Your task to perform on an android device: check google app version Image 0: 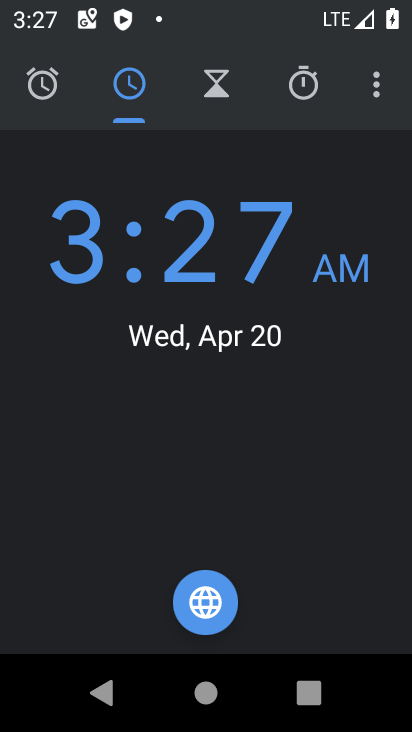
Step 0: press home button
Your task to perform on an android device: check google app version Image 1: 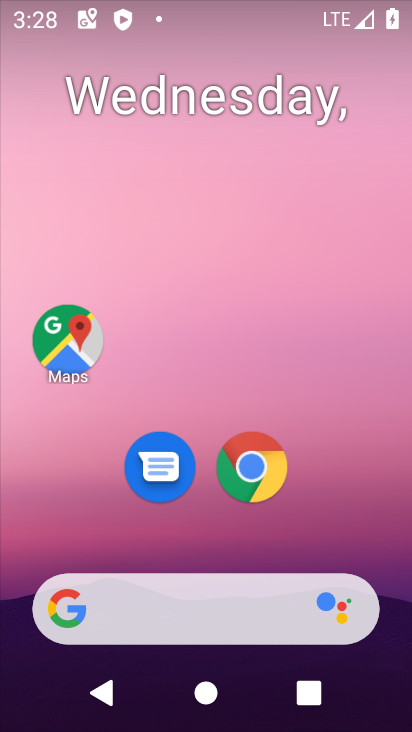
Step 1: click (248, 465)
Your task to perform on an android device: check google app version Image 2: 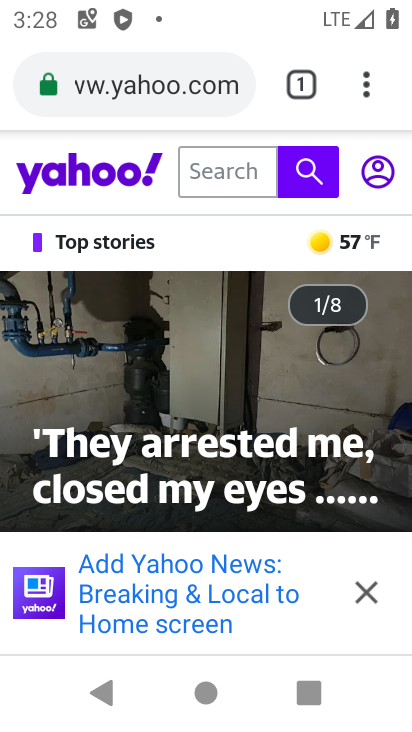
Step 2: click (365, 92)
Your task to perform on an android device: check google app version Image 3: 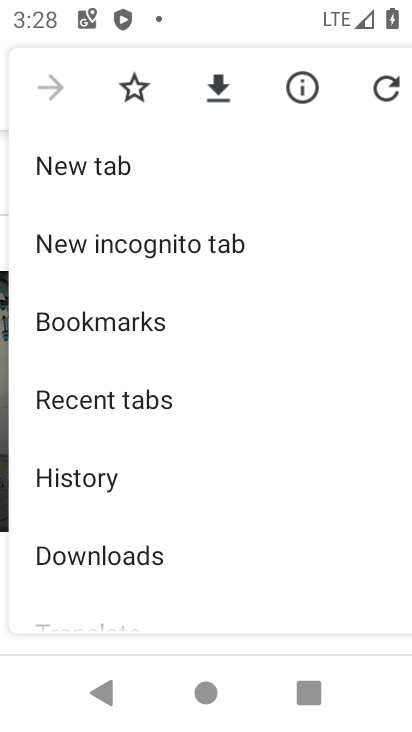
Step 3: drag from (225, 560) to (243, 270)
Your task to perform on an android device: check google app version Image 4: 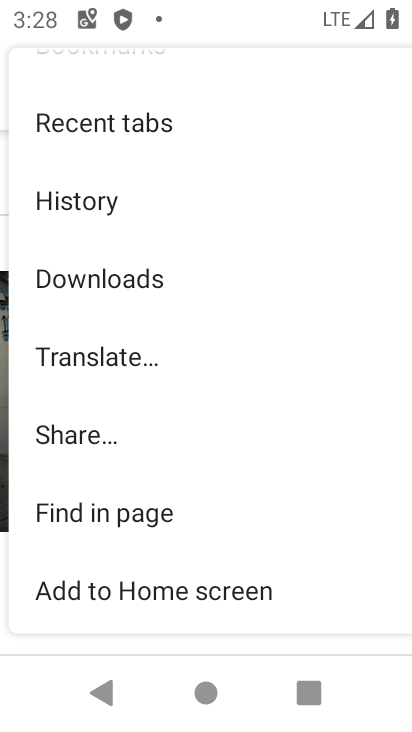
Step 4: drag from (267, 542) to (244, 200)
Your task to perform on an android device: check google app version Image 5: 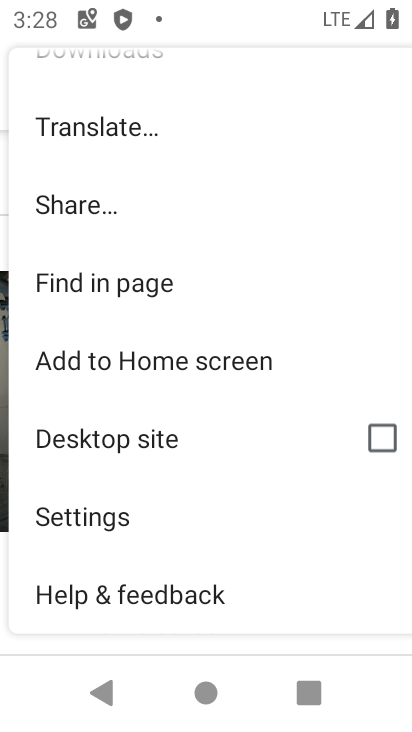
Step 5: click (89, 521)
Your task to perform on an android device: check google app version Image 6: 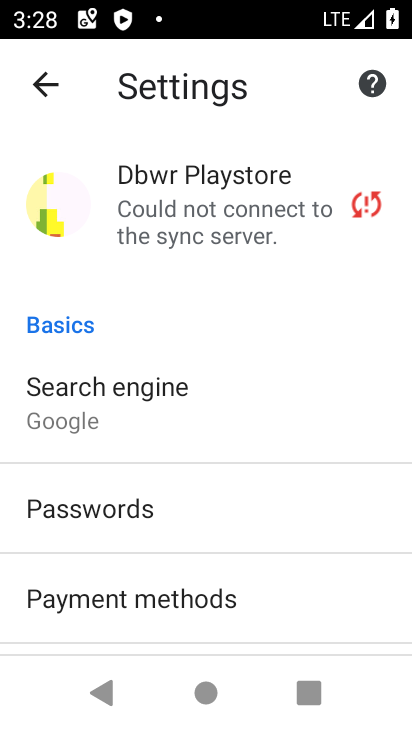
Step 6: drag from (286, 580) to (298, 300)
Your task to perform on an android device: check google app version Image 7: 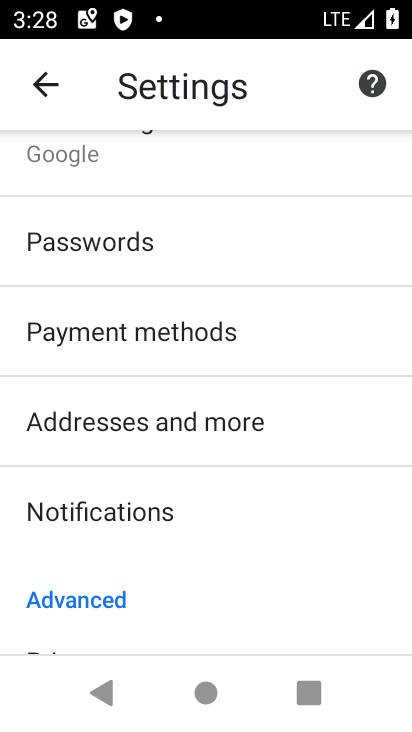
Step 7: drag from (266, 540) to (325, 244)
Your task to perform on an android device: check google app version Image 8: 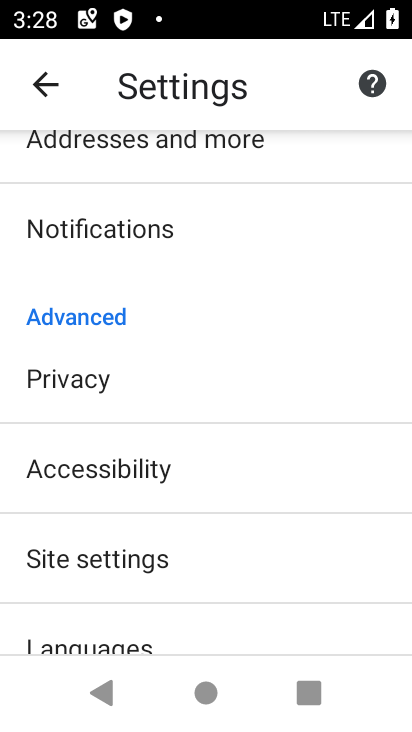
Step 8: drag from (263, 590) to (271, 285)
Your task to perform on an android device: check google app version Image 9: 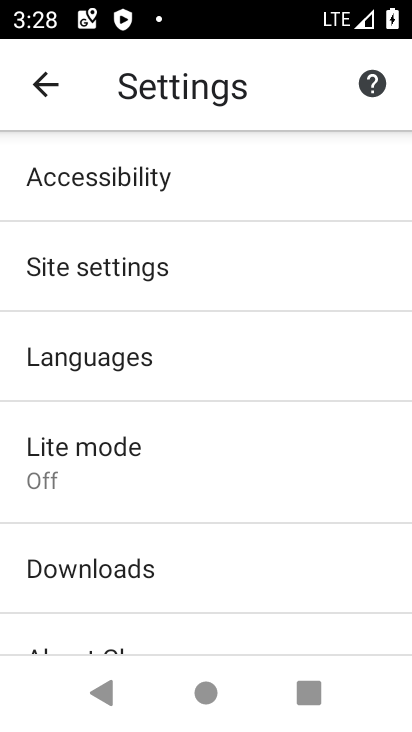
Step 9: drag from (281, 543) to (298, 201)
Your task to perform on an android device: check google app version Image 10: 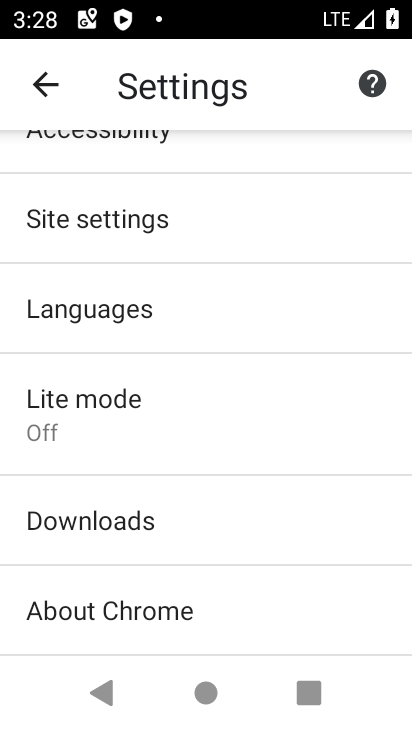
Step 10: click (82, 619)
Your task to perform on an android device: check google app version Image 11: 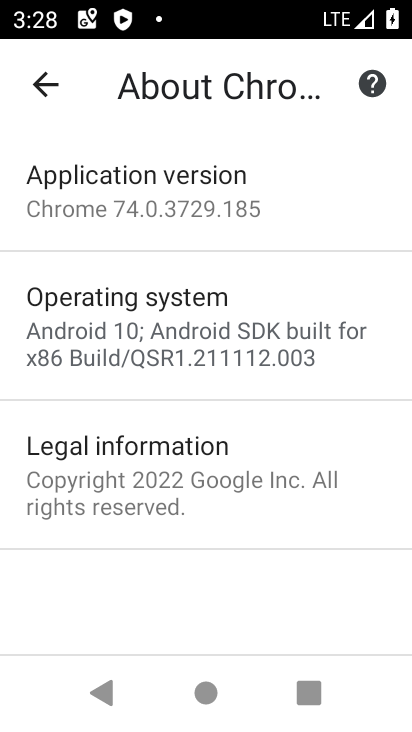
Step 11: click (163, 174)
Your task to perform on an android device: check google app version Image 12: 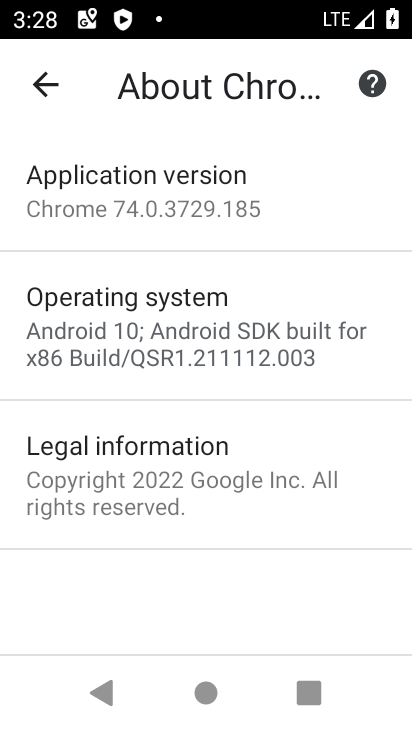
Step 12: task complete